Your task to perform on an android device: clear history in the chrome app Image 0: 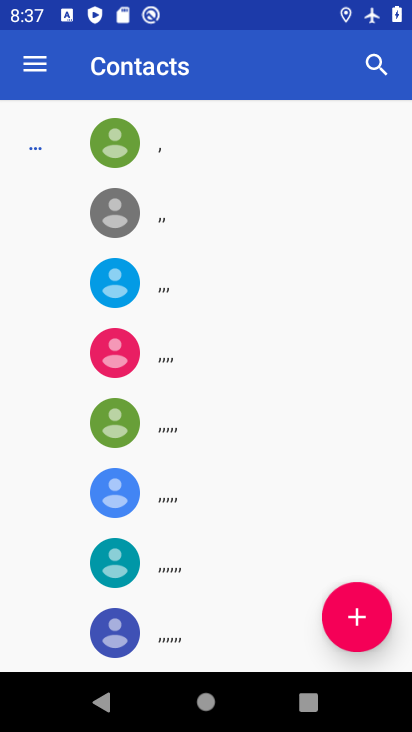
Step 0: press home button
Your task to perform on an android device: clear history in the chrome app Image 1: 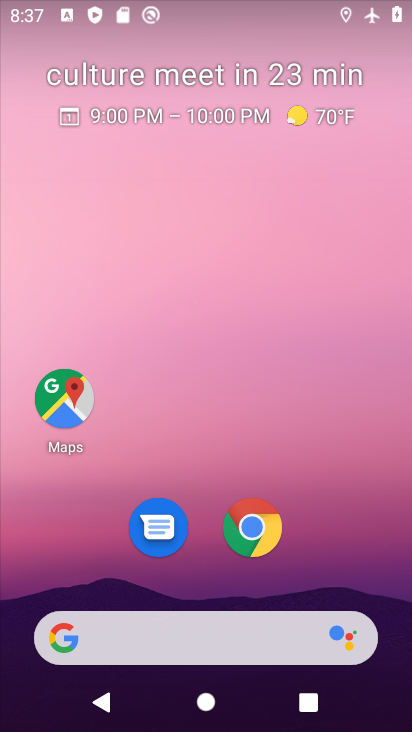
Step 1: drag from (253, 505) to (303, 173)
Your task to perform on an android device: clear history in the chrome app Image 2: 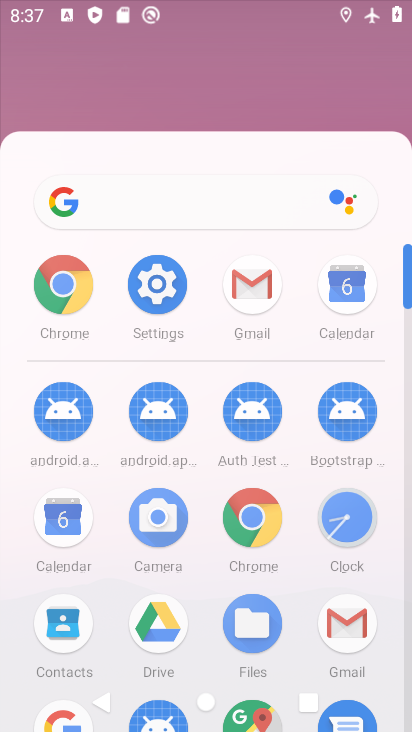
Step 2: click (318, 5)
Your task to perform on an android device: clear history in the chrome app Image 3: 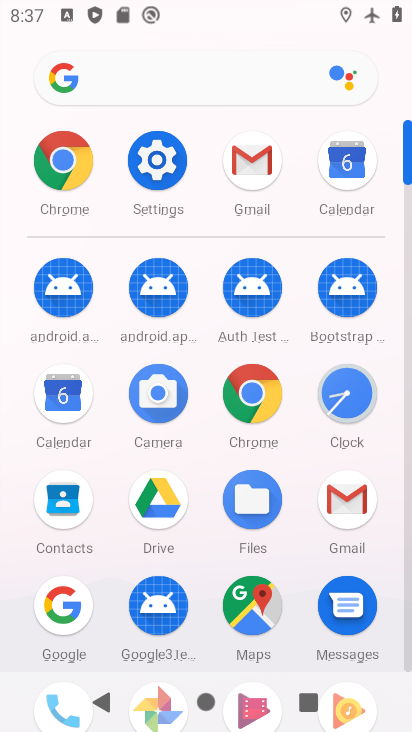
Step 3: click (269, 405)
Your task to perform on an android device: clear history in the chrome app Image 4: 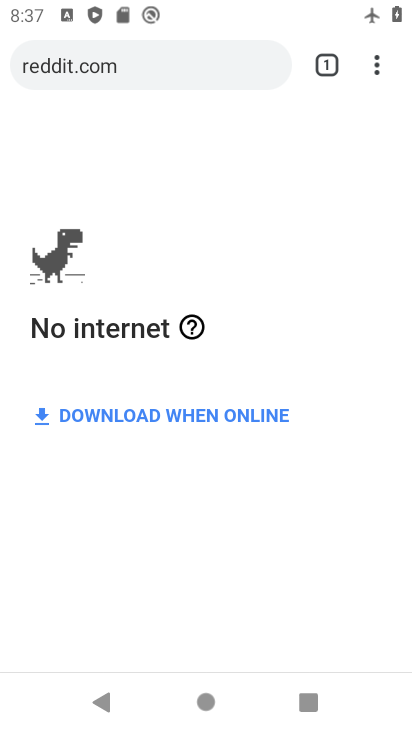
Step 4: click (377, 68)
Your task to perform on an android device: clear history in the chrome app Image 5: 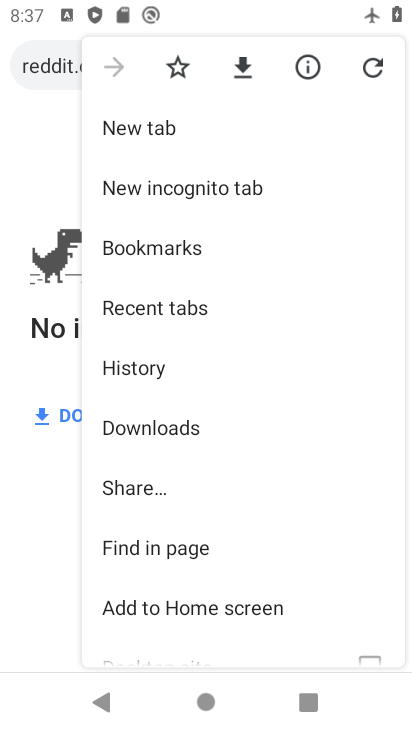
Step 5: click (185, 363)
Your task to perform on an android device: clear history in the chrome app Image 6: 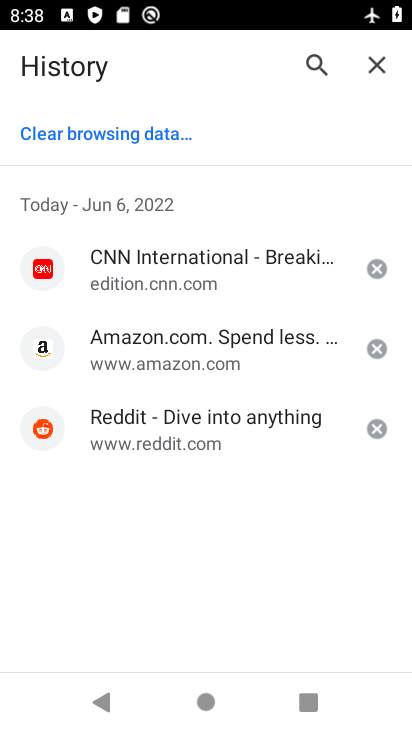
Step 6: click (143, 135)
Your task to perform on an android device: clear history in the chrome app Image 7: 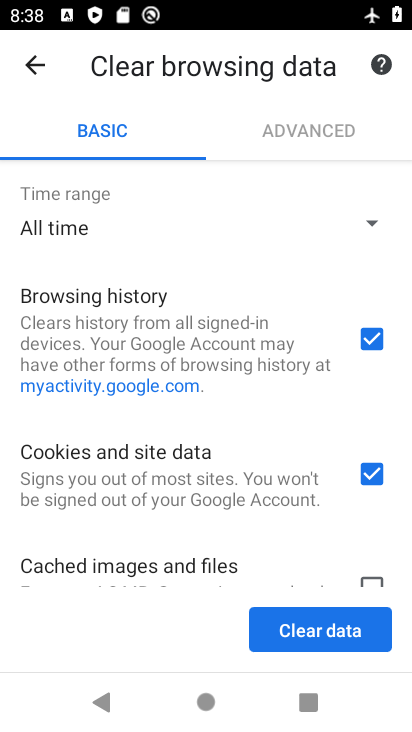
Step 7: click (372, 630)
Your task to perform on an android device: clear history in the chrome app Image 8: 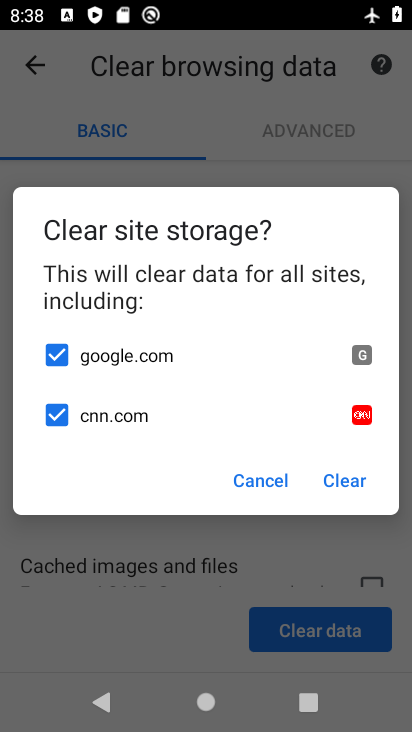
Step 8: click (323, 487)
Your task to perform on an android device: clear history in the chrome app Image 9: 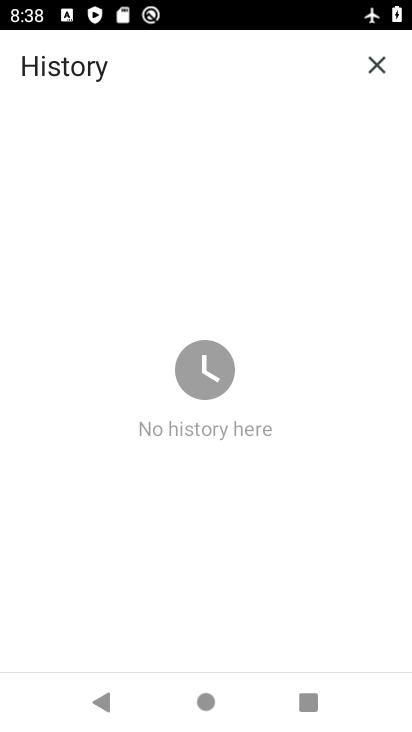
Step 9: task complete